Your task to perform on an android device: Open Google Image 0: 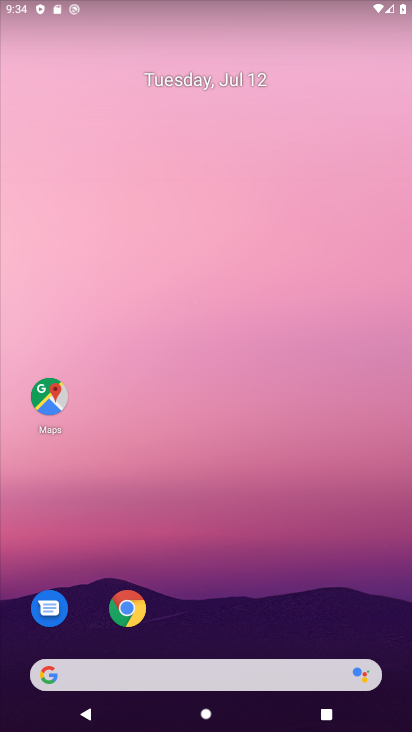
Step 0: drag from (270, 609) to (311, 13)
Your task to perform on an android device: Open Google Image 1: 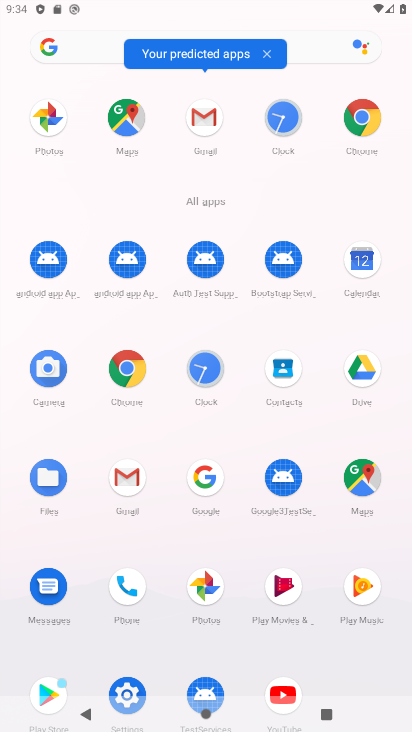
Step 1: click (196, 489)
Your task to perform on an android device: Open Google Image 2: 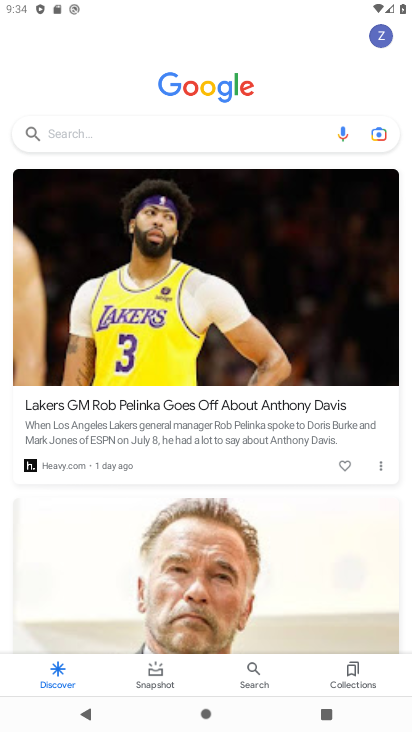
Step 2: task complete